Your task to perform on an android device: Search for corsair k70 on walmart.com, select the first entry, and add it to the cart. Image 0: 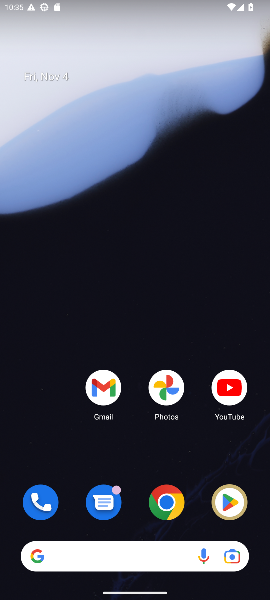
Step 0: drag from (131, 413) to (156, 90)
Your task to perform on an android device: Search for corsair k70 on walmart.com, select the first entry, and add it to the cart. Image 1: 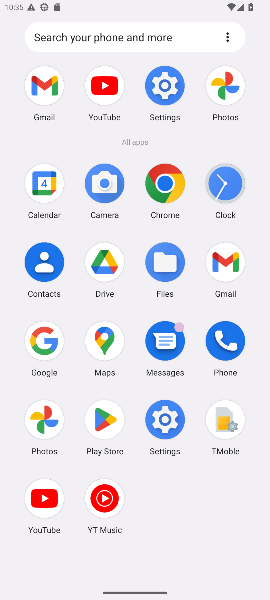
Step 1: click (169, 189)
Your task to perform on an android device: Search for corsair k70 on walmart.com, select the first entry, and add it to the cart. Image 2: 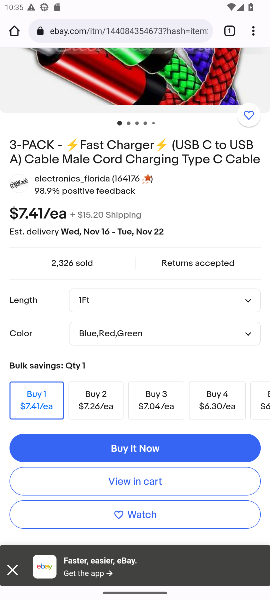
Step 2: click (132, 29)
Your task to perform on an android device: Search for corsair k70 on walmart.com, select the first entry, and add it to the cart. Image 3: 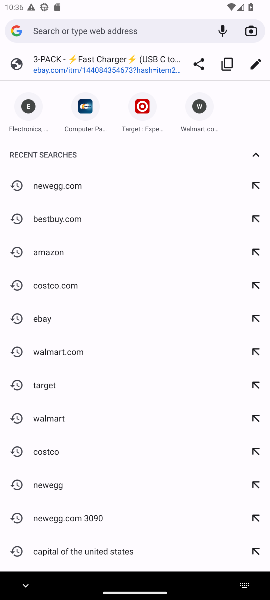
Step 3: type "walmart.com"
Your task to perform on an android device: Search for corsair k70 on walmart.com, select the first entry, and add it to the cart. Image 4: 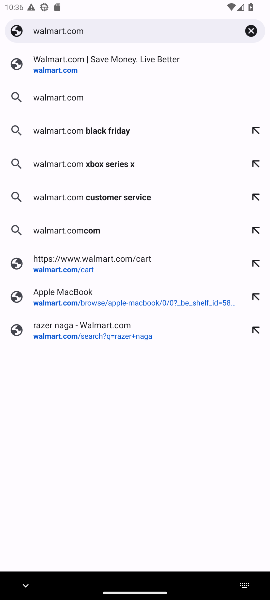
Step 4: press enter
Your task to perform on an android device: Search for corsair k70 on walmart.com, select the first entry, and add it to the cart. Image 5: 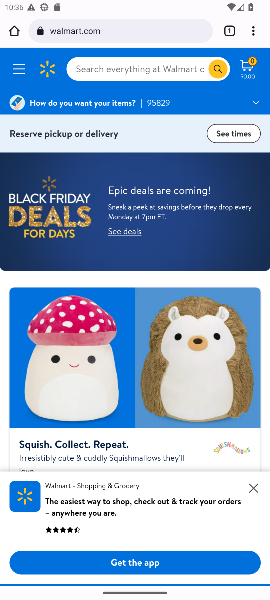
Step 5: click (161, 67)
Your task to perform on an android device: Search for corsair k70 on walmart.com, select the first entry, and add it to the cart. Image 6: 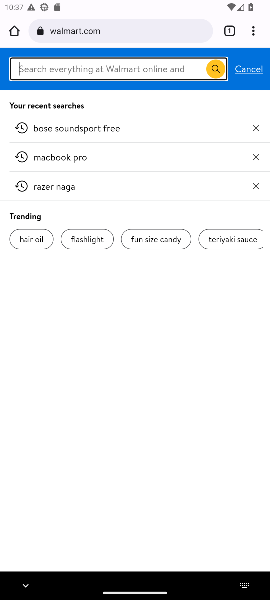
Step 6: type "corsair k70"
Your task to perform on an android device: Search for corsair k70 on walmart.com, select the first entry, and add it to the cart. Image 7: 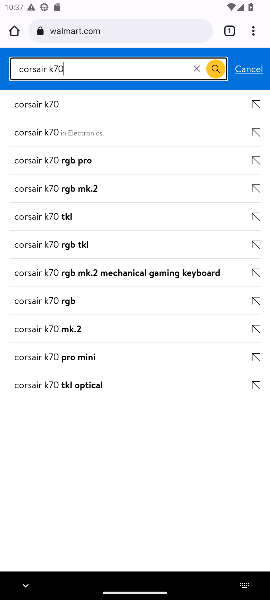
Step 7: press enter
Your task to perform on an android device: Search for corsair k70 on walmart.com, select the first entry, and add it to the cart. Image 8: 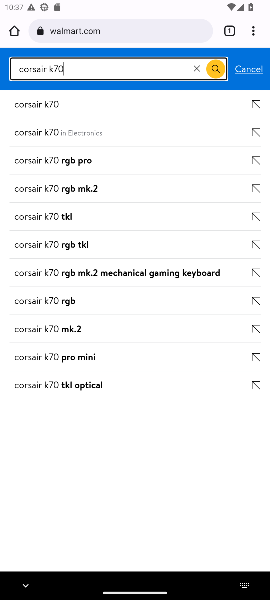
Step 8: press enter
Your task to perform on an android device: Search for corsair k70 on walmart.com, select the first entry, and add it to the cart. Image 9: 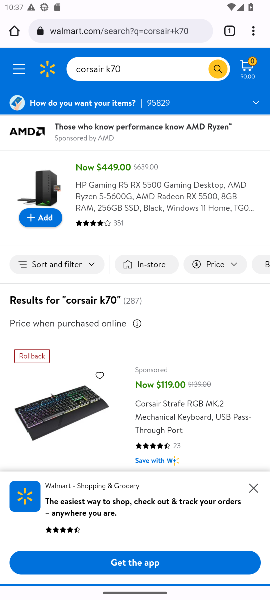
Step 9: drag from (192, 423) to (236, 74)
Your task to perform on an android device: Search for corsair k70 on walmart.com, select the first entry, and add it to the cart. Image 10: 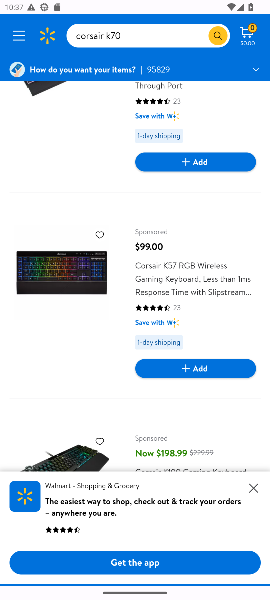
Step 10: drag from (186, 429) to (199, 111)
Your task to perform on an android device: Search for corsair k70 on walmart.com, select the first entry, and add it to the cart. Image 11: 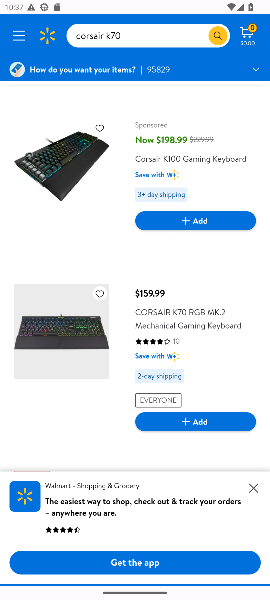
Step 11: click (195, 418)
Your task to perform on an android device: Search for corsair k70 on walmart.com, select the first entry, and add it to the cart. Image 12: 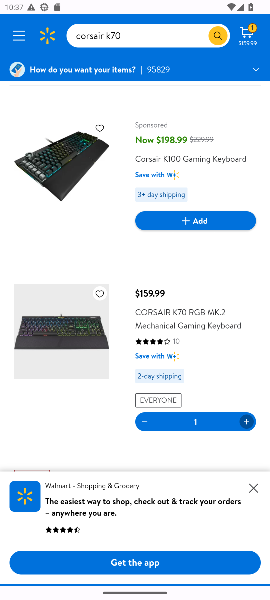
Step 12: task complete